Your task to perform on an android device: Open my contact list Image 0: 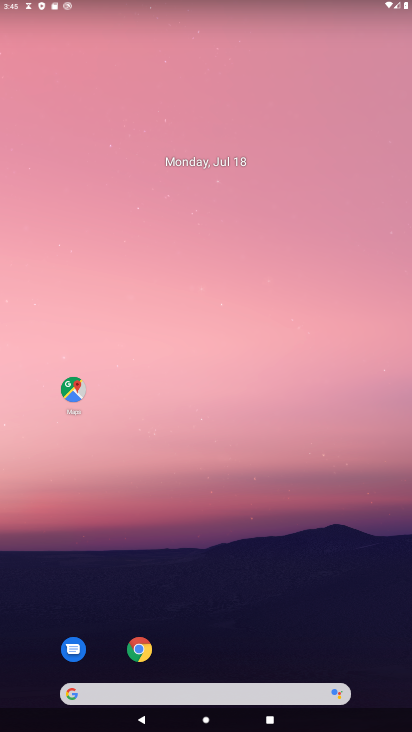
Step 0: press home button
Your task to perform on an android device: Open my contact list Image 1: 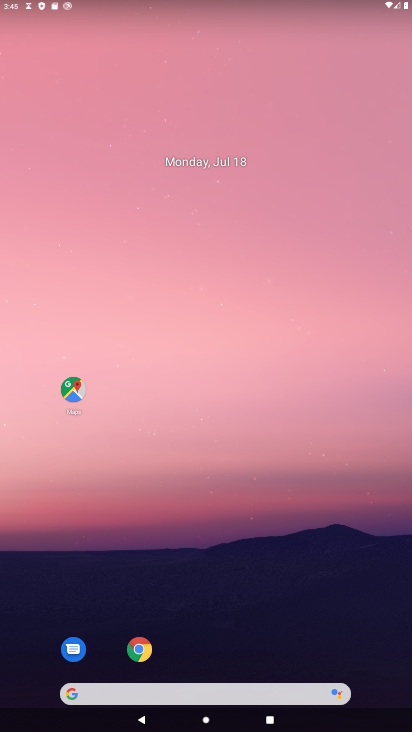
Step 1: drag from (289, 635) to (277, 73)
Your task to perform on an android device: Open my contact list Image 2: 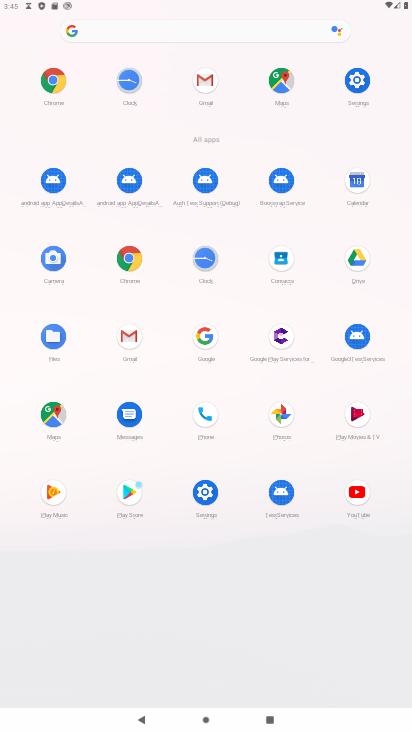
Step 2: click (289, 252)
Your task to perform on an android device: Open my contact list Image 3: 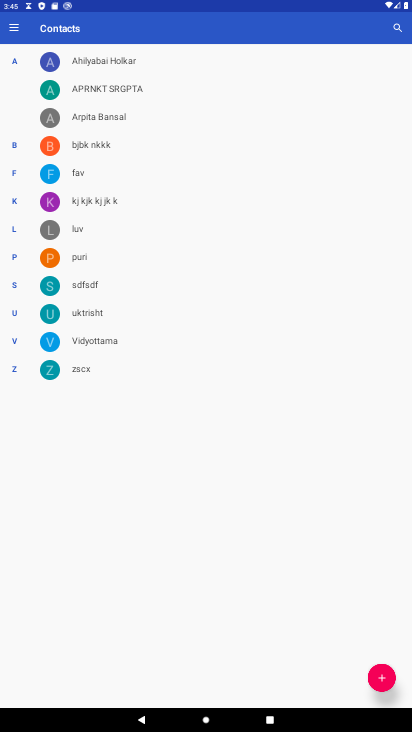
Step 3: task complete